Your task to perform on an android device: check storage Image 0: 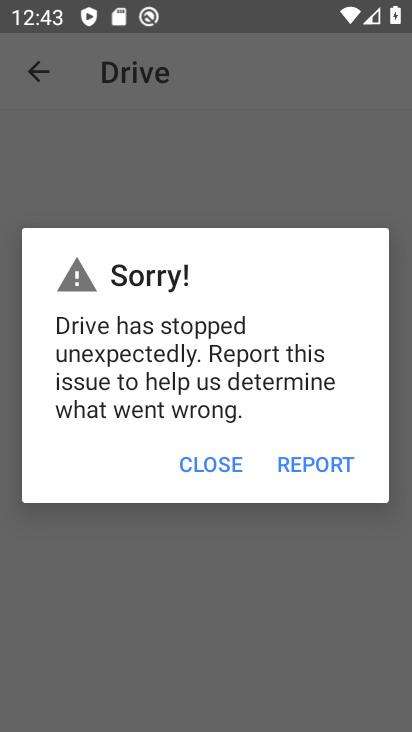
Step 0: press home button
Your task to perform on an android device: check storage Image 1: 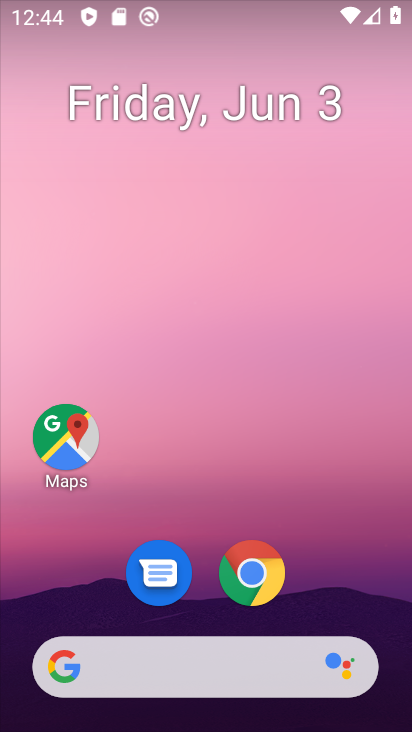
Step 1: task complete